Your task to perform on an android device: Go to settings Image 0: 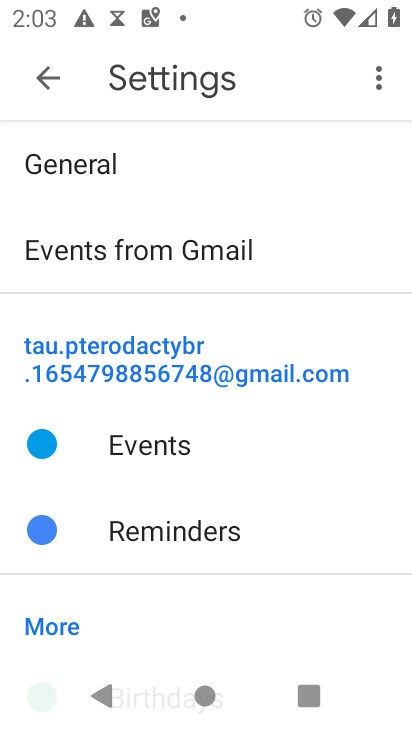
Step 0: press back button
Your task to perform on an android device: Go to settings Image 1: 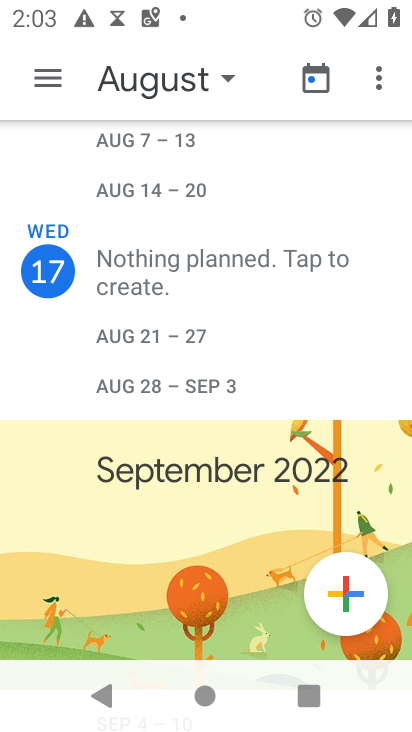
Step 1: drag from (293, 3) to (285, 43)
Your task to perform on an android device: Go to settings Image 2: 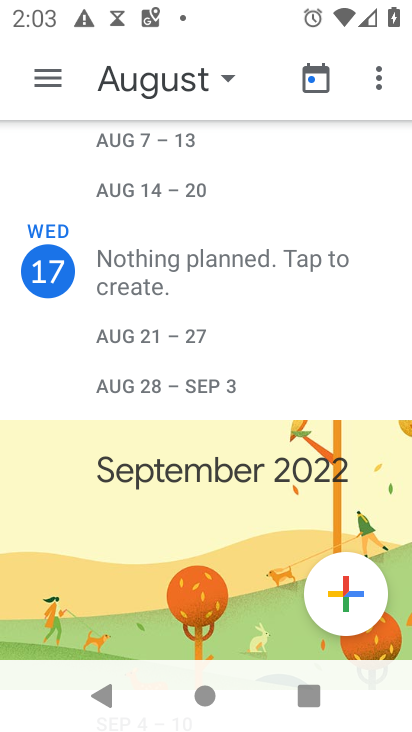
Step 2: press back button
Your task to perform on an android device: Go to settings Image 3: 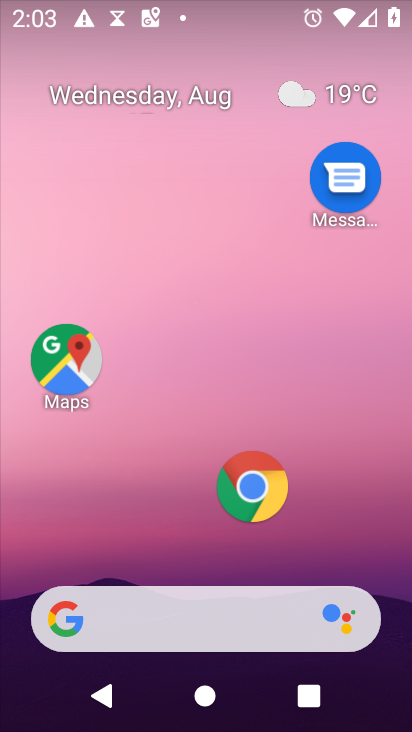
Step 3: drag from (214, 14) to (182, 667)
Your task to perform on an android device: Go to settings Image 4: 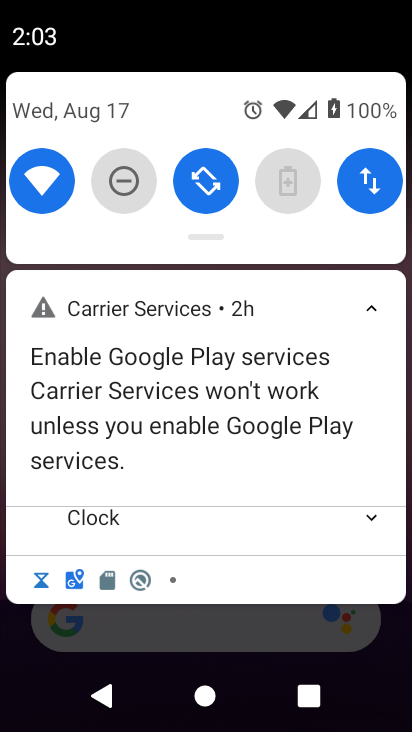
Step 4: drag from (172, 629) to (227, 97)
Your task to perform on an android device: Go to settings Image 5: 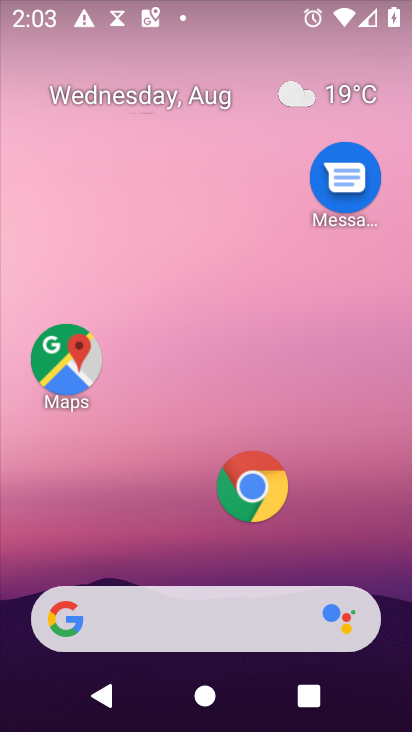
Step 5: drag from (170, 596) to (227, 4)
Your task to perform on an android device: Go to settings Image 6: 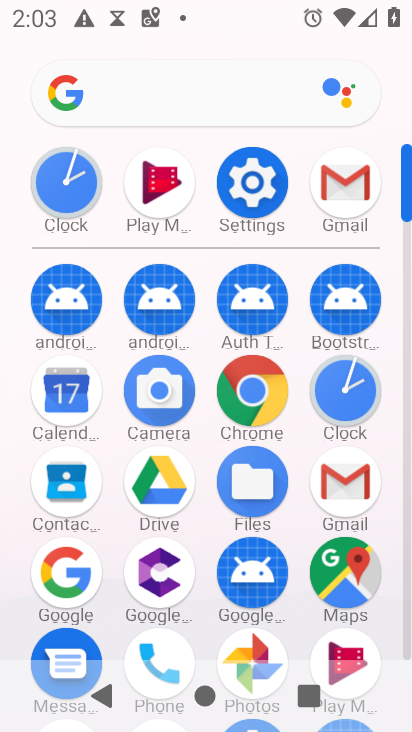
Step 6: click (248, 201)
Your task to perform on an android device: Go to settings Image 7: 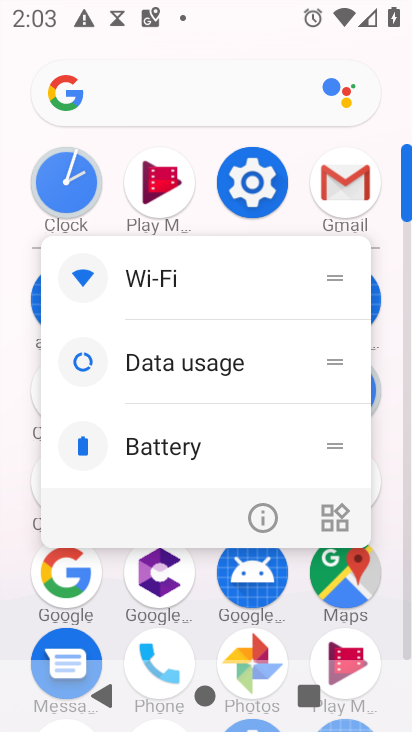
Step 7: click (255, 171)
Your task to perform on an android device: Go to settings Image 8: 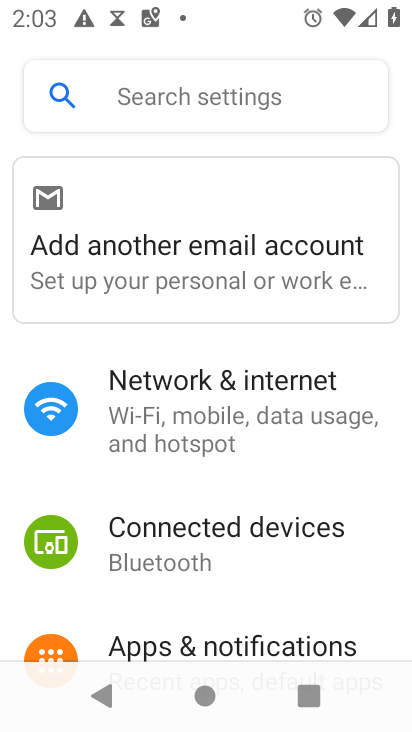
Step 8: task complete